Your task to perform on an android device: Open Google Image 0: 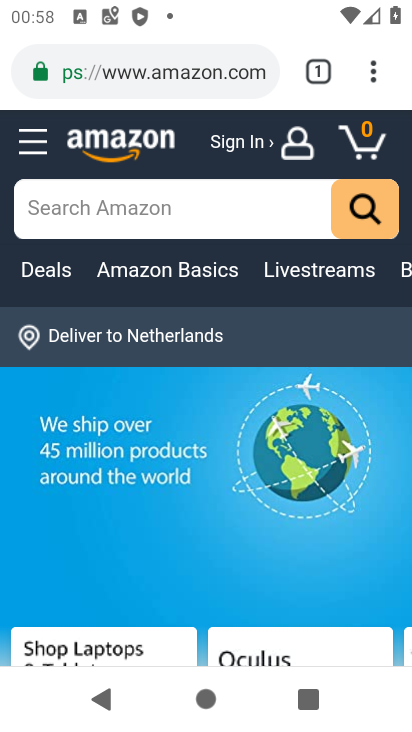
Step 0: task complete